Your task to perform on an android device: Open Chrome and go to the settings page Image 0: 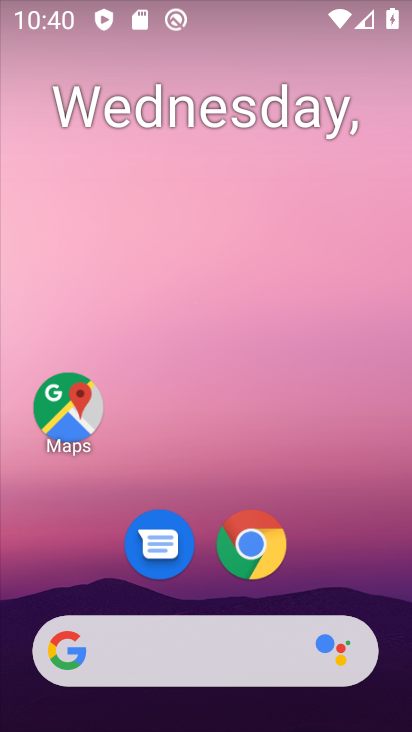
Step 0: click (251, 558)
Your task to perform on an android device: Open Chrome and go to the settings page Image 1: 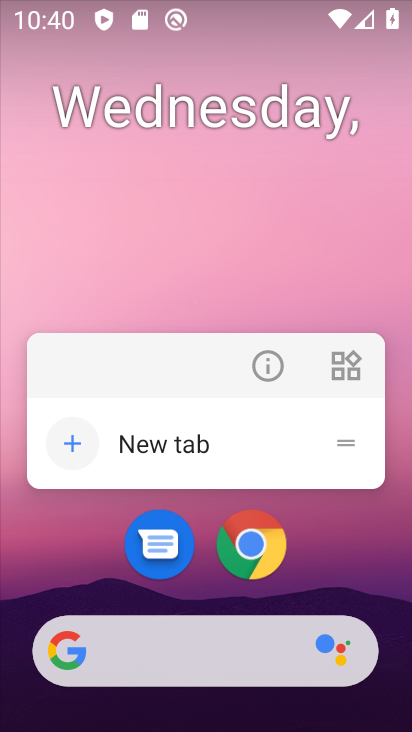
Step 1: click (251, 558)
Your task to perform on an android device: Open Chrome and go to the settings page Image 2: 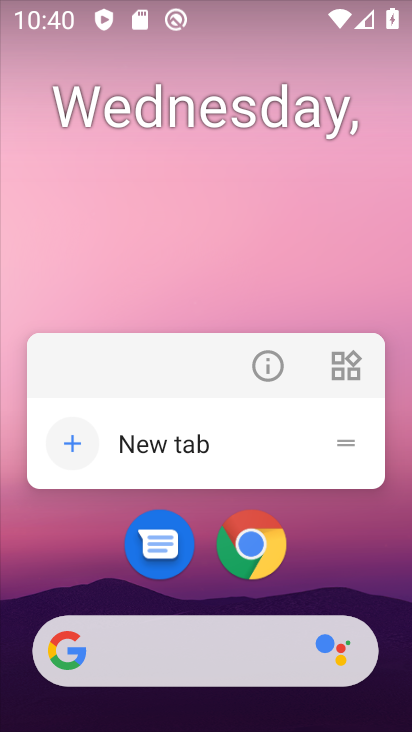
Step 2: click (248, 556)
Your task to perform on an android device: Open Chrome and go to the settings page Image 3: 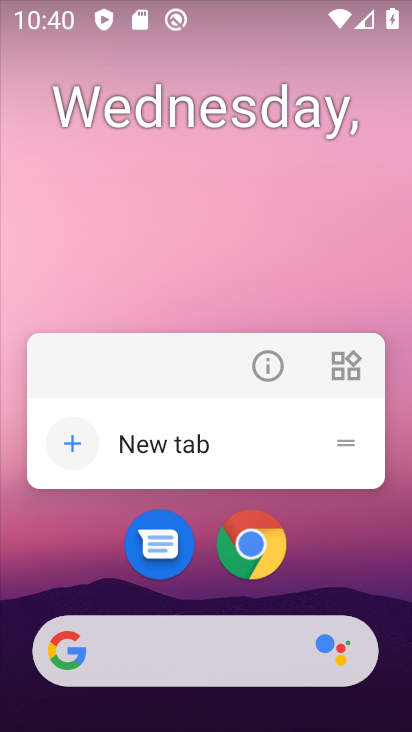
Step 3: click (255, 556)
Your task to perform on an android device: Open Chrome and go to the settings page Image 4: 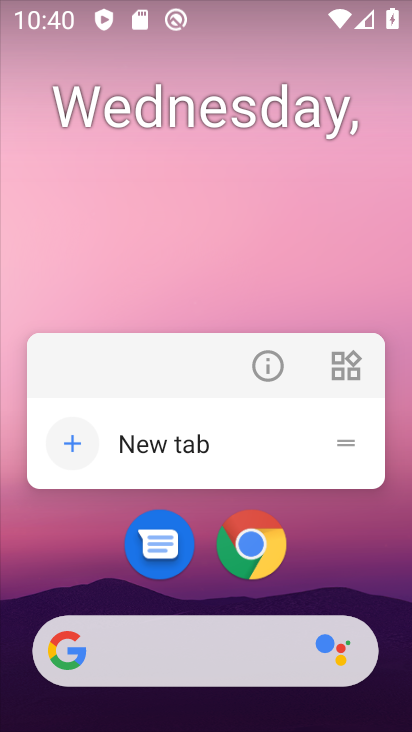
Step 4: drag from (306, 608) to (410, 86)
Your task to perform on an android device: Open Chrome and go to the settings page Image 5: 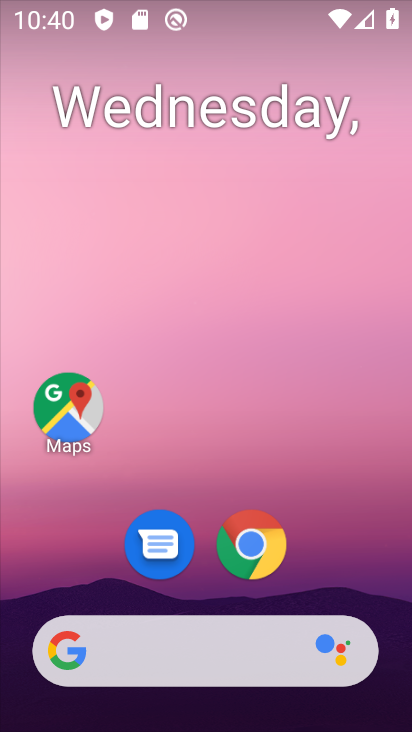
Step 5: drag from (325, 563) to (402, 343)
Your task to perform on an android device: Open Chrome and go to the settings page Image 6: 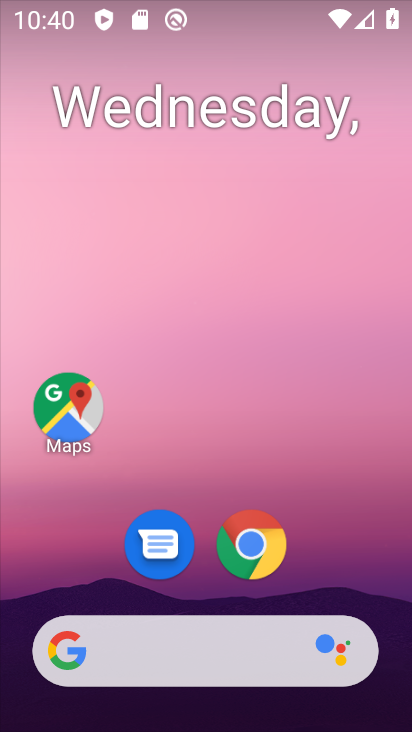
Step 6: click (249, 553)
Your task to perform on an android device: Open Chrome and go to the settings page Image 7: 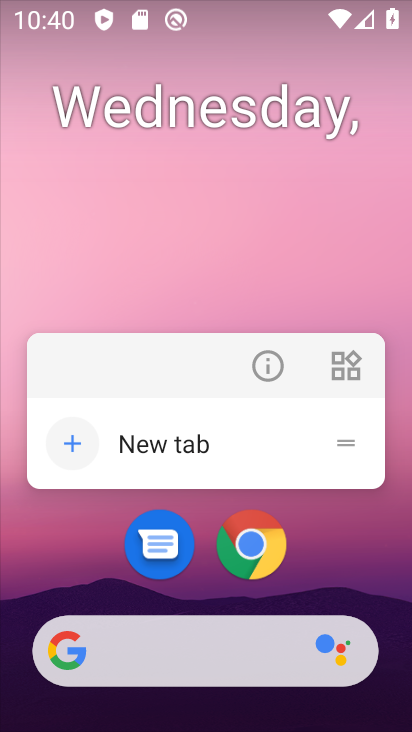
Step 7: drag from (330, 556) to (411, 471)
Your task to perform on an android device: Open Chrome and go to the settings page Image 8: 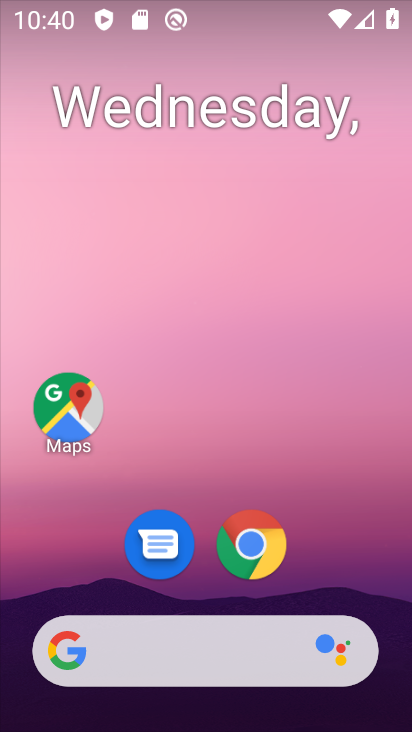
Step 8: drag from (347, 490) to (398, 314)
Your task to perform on an android device: Open Chrome and go to the settings page Image 9: 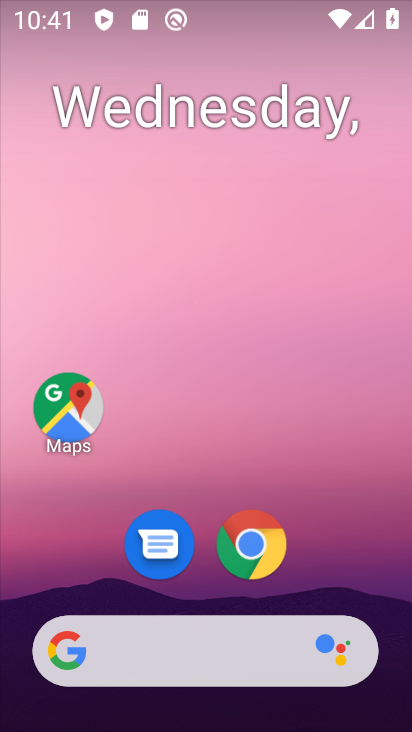
Step 9: click (256, 558)
Your task to perform on an android device: Open Chrome and go to the settings page Image 10: 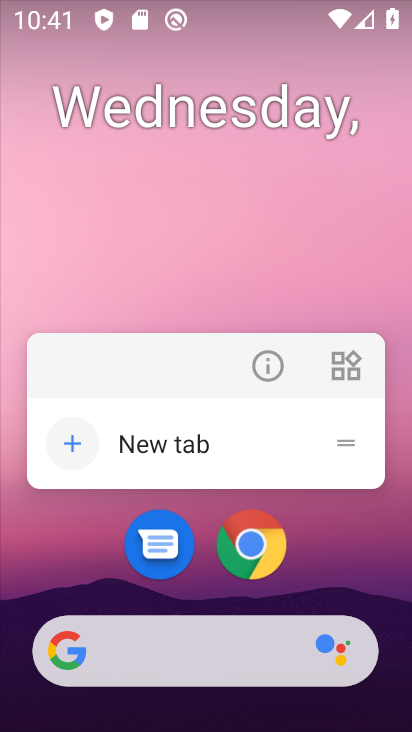
Step 10: click (256, 540)
Your task to perform on an android device: Open Chrome and go to the settings page Image 11: 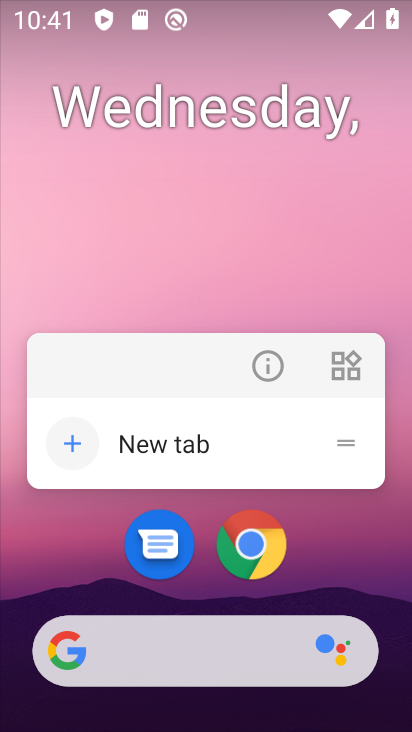
Step 11: click (258, 565)
Your task to perform on an android device: Open Chrome and go to the settings page Image 12: 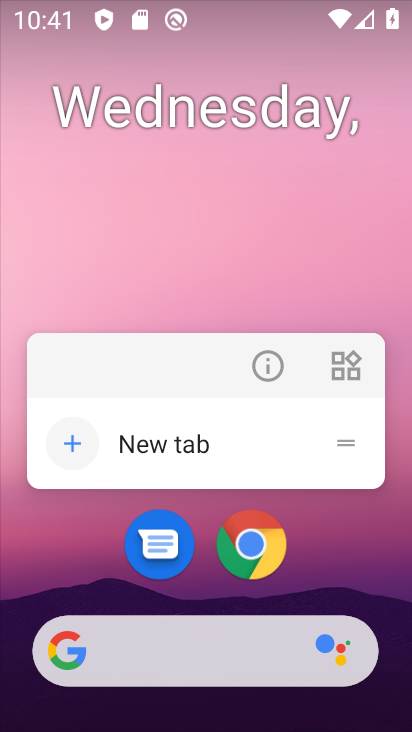
Step 12: click (247, 541)
Your task to perform on an android device: Open Chrome and go to the settings page Image 13: 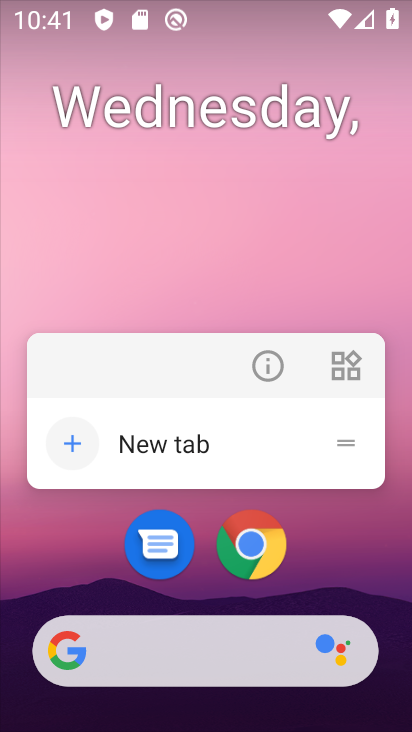
Step 13: click (277, 534)
Your task to perform on an android device: Open Chrome and go to the settings page Image 14: 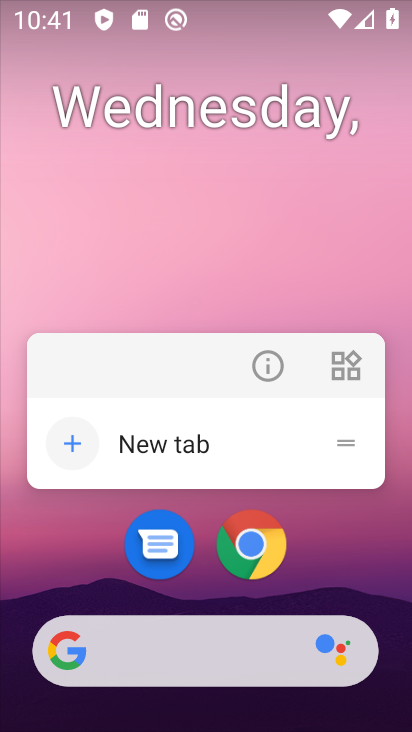
Step 14: click (380, 596)
Your task to perform on an android device: Open Chrome and go to the settings page Image 15: 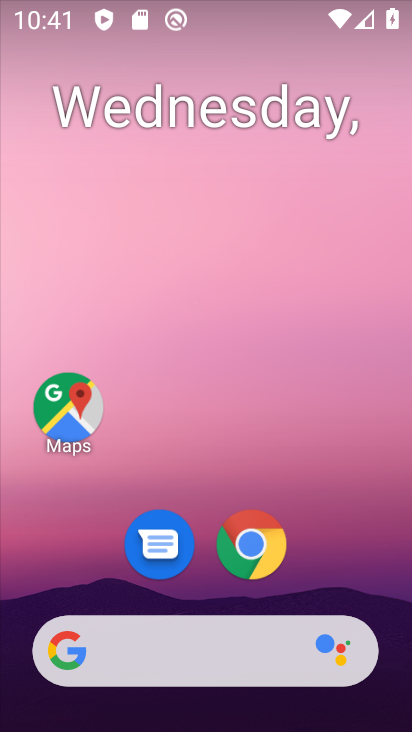
Step 15: drag from (284, 615) to (398, 570)
Your task to perform on an android device: Open Chrome and go to the settings page Image 16: 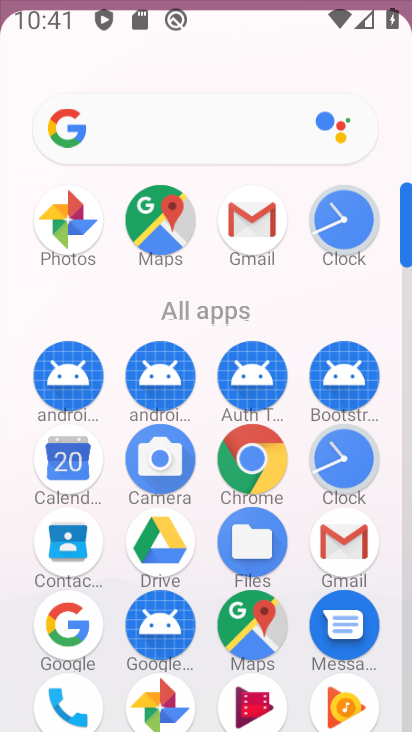
Step 16: click (266, 463)
Your task to perform on an android device: Open Chrome and go to the settings page Image 17: 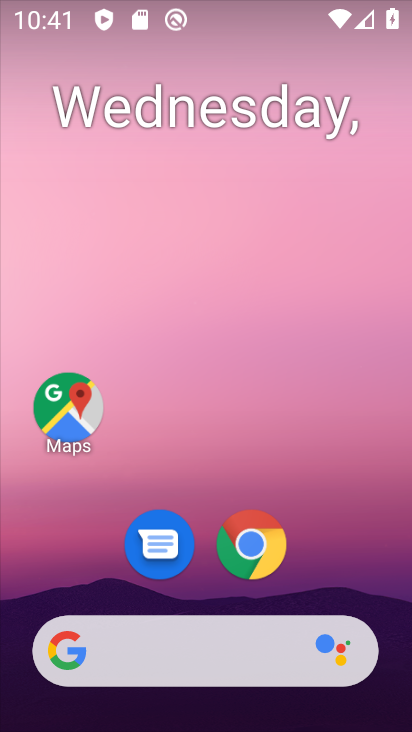
Step 17: drag from (321, 585) to (405, 122)
Your task to perform on an android device: Open Chrome and go to the settings page Image 18: 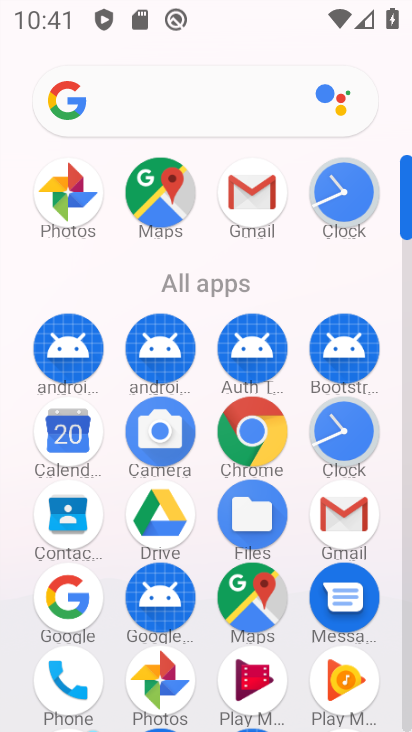
Step 18: click (234, 446)
Your task to perform on an android device: Open Chrome and go to the settings page Image 19: 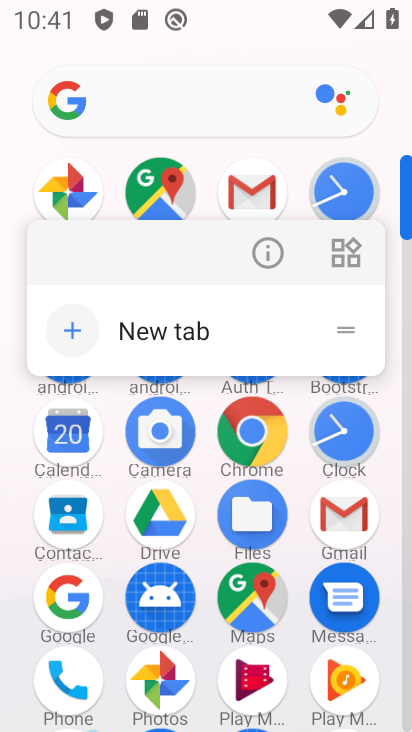
Step 19: click (259, 438)
Your task to perform on an android device: Open Chrome and go to the settings page Image 20: 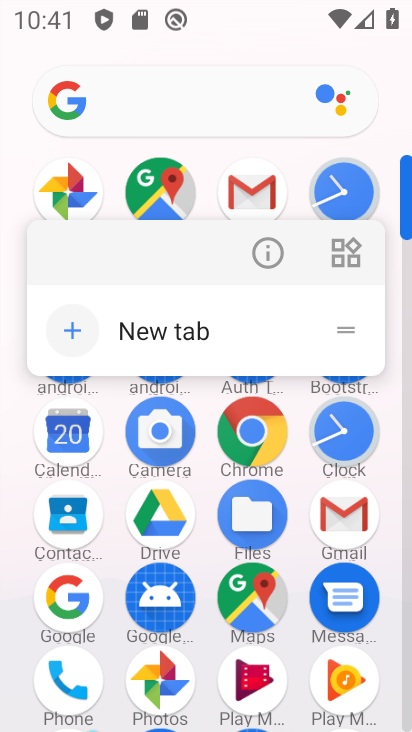
Step 20: click (259, 438)
Your task to perform on an android device: Open Chrome and go to the settings page Image 21: 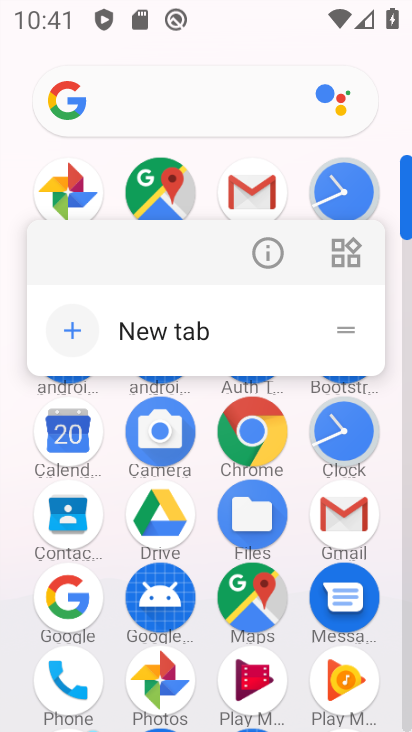
Step 21: click (254, 429)
Your task to perform on an android device: Open Chrome and go to the settings page Image 22: 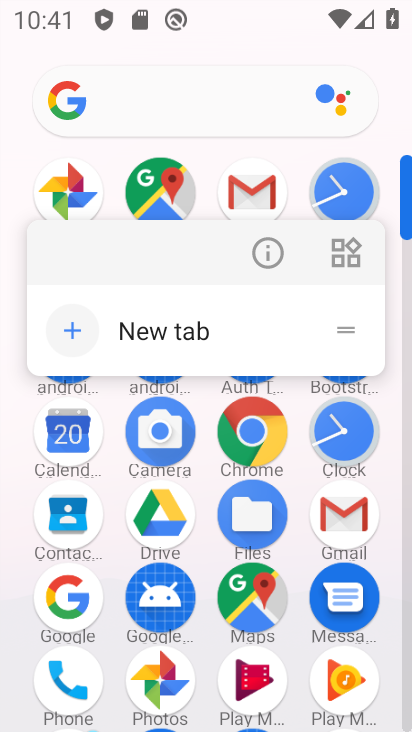
Step 22: click (254, 426)
Your task to perform on an android device: Open Chrome and go to the settings page Image 23: 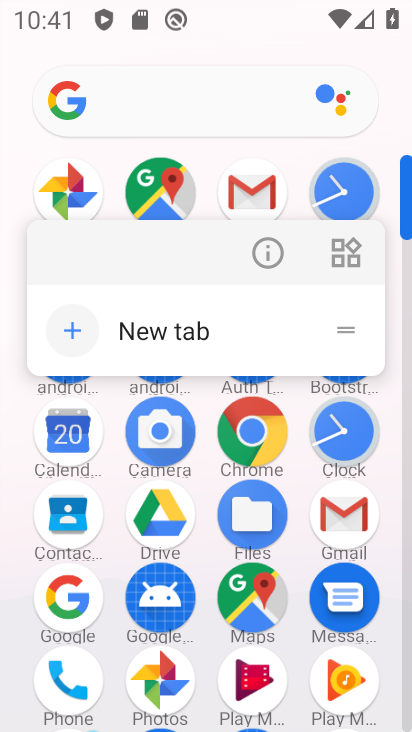
Step 23: click (266, 432)
Your task to perform on an android device: Open Chrome and go to the settings page Image 24: 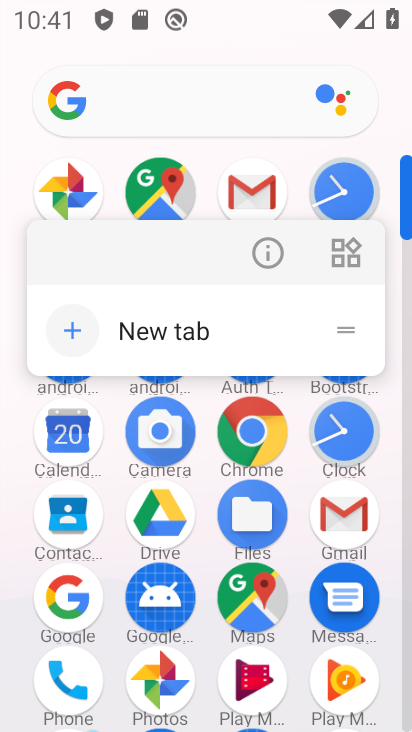
Step 24: click (259, 464)
Your task to perform on an android device: Open Chrome and go to the settings page Image 25: 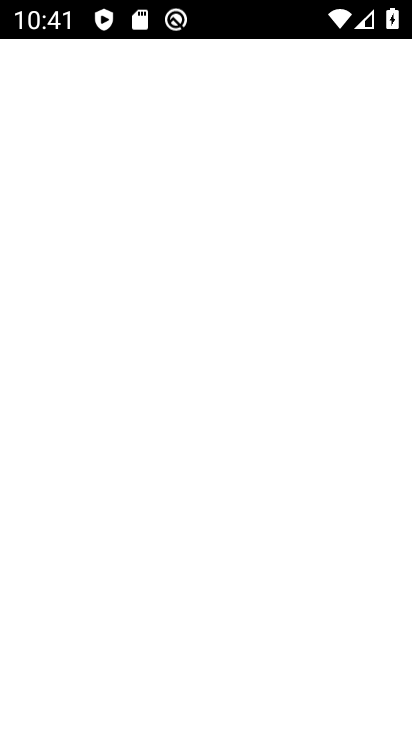
Step 25: click (232, 449)
Your task to perform on an android device: Open Chrome and go to the settings page Image 26: 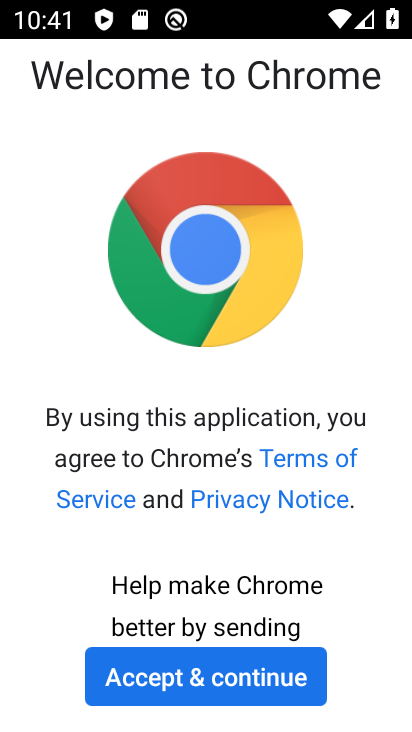
Step 26: click (246, 679)
Your task to perform on an android device: Open Chrome and go to the settings page Image 27: 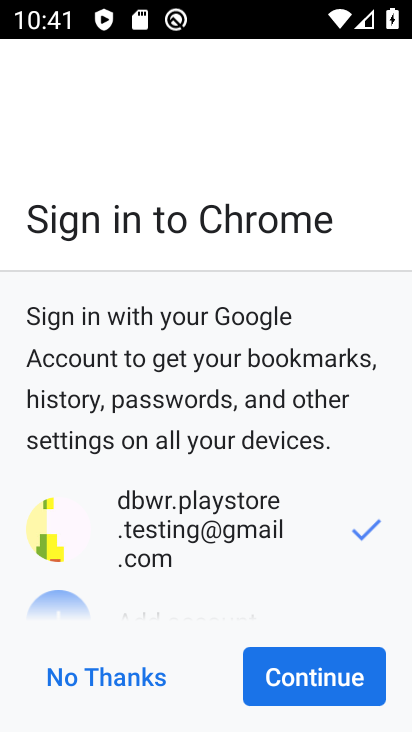
Step 27: click (344, 676)
Your task to perform on an android device: Open Chrome and go to the settings page Image 28: 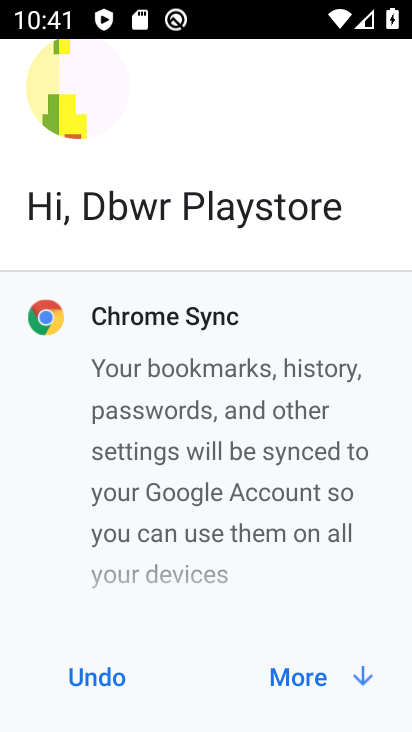
Step 28: click (343, 677)
Your task to perform on an android device: Open Chrome and go to the settings page Image 29: 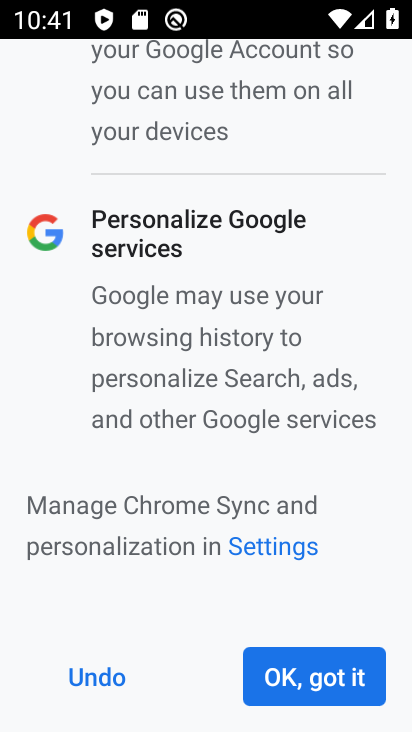
Step 29: click (343, 677)
Your task to perform on an android device: Open Chrome and go to the settings page Image 30: 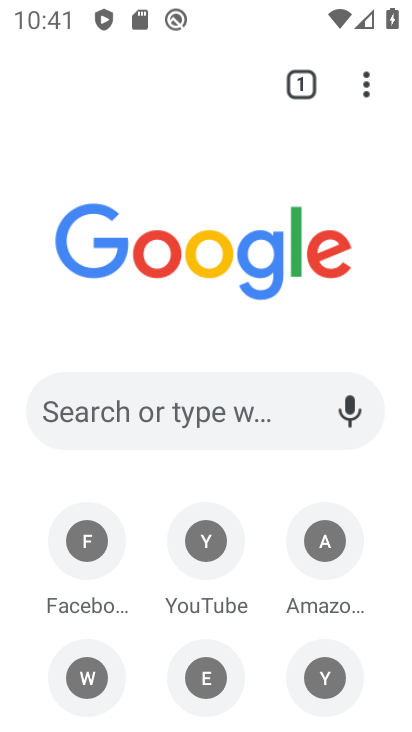
Step 30: task complete